Your task to perform on an android device: Open calendar and show me the first week of next month Image 0: 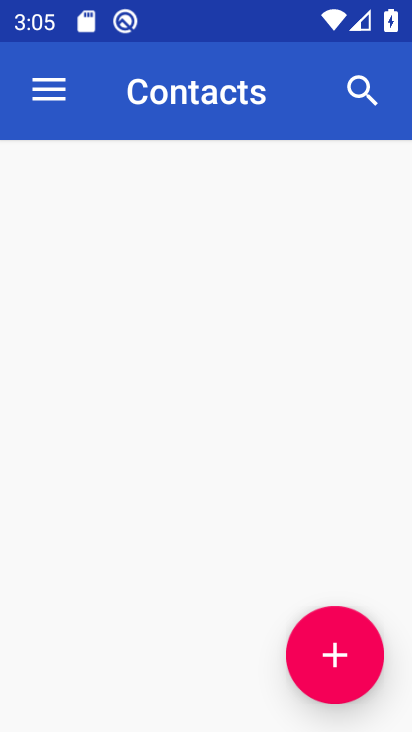
Step 0: press home button
Your task to perform on an android device: Open calendar and show me the first week of next month Image 1: 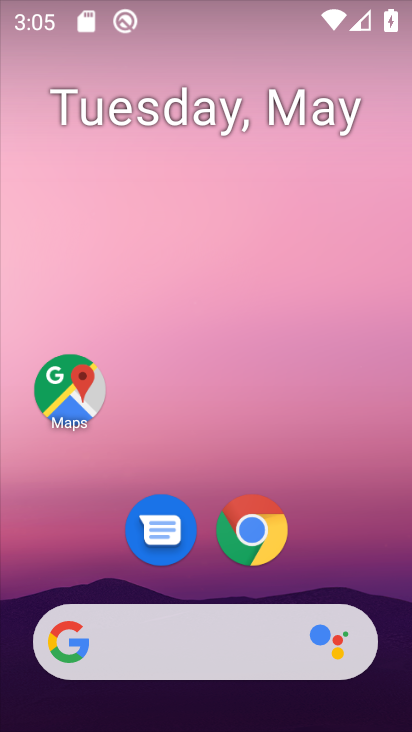
Step 1: drag from (70, 583) to (237, 95)
Your task to perform on an android device: Open calendar and show me the first week of next month Image 2: 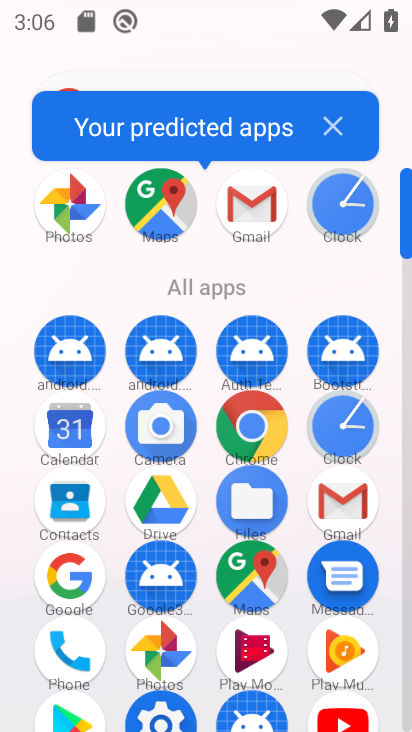
Step 2: click (85, 436)
Your task to perform on an android device: Open calendar and show me the first week of next month Image 3: 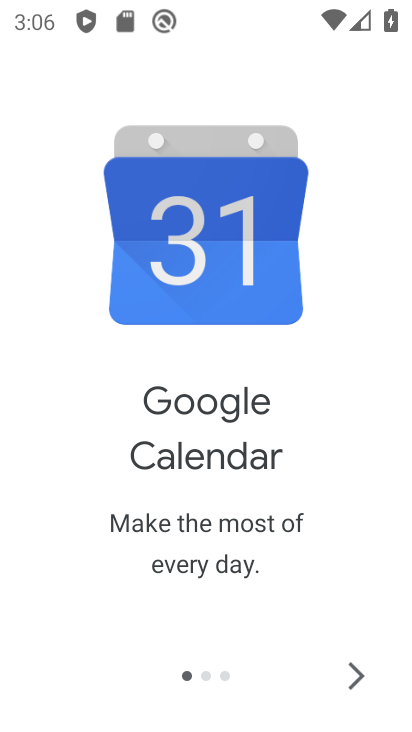
Step 3: click (380, 701)
Your task to perform on an android device: Open calendar and show me the first week of next month Image 4: 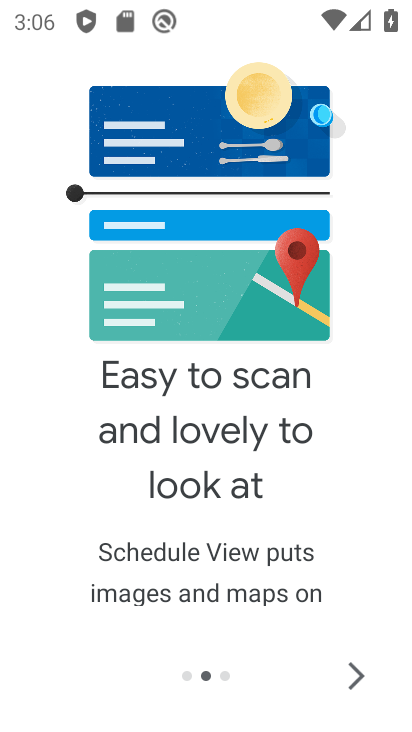
Step 4: click (379, 700)
Your task to perform on an android device: Open calendar and show me the first week of next month Image 5: 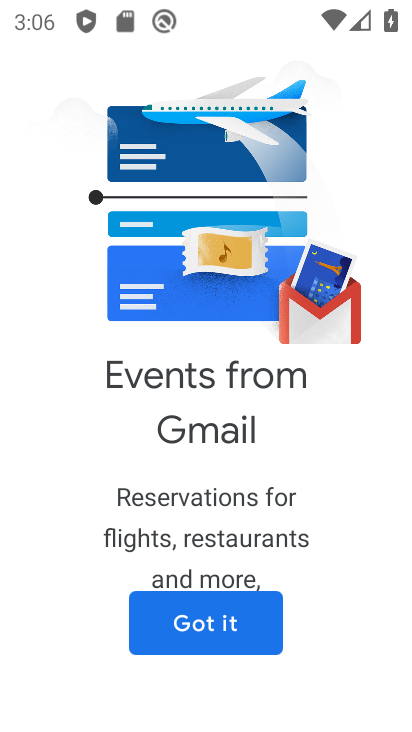
Step 5: click (278, 654)
Your task to perform on an android device: Open calendar and show me the first week of next month Image 6: 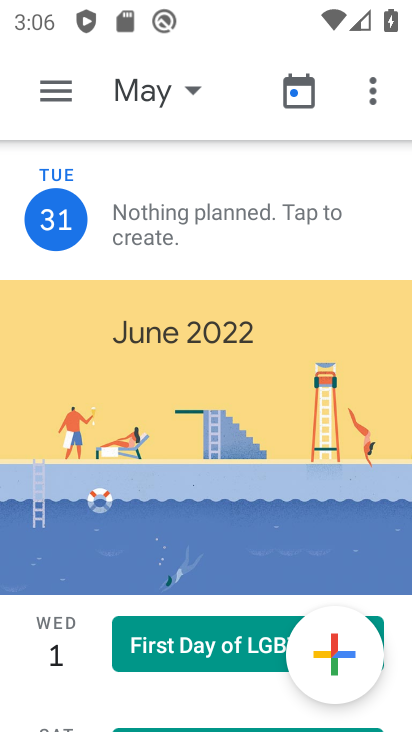
Step 6: click (146, 94)
Your task to perform on an android device: Open calendar and show me the first week of next month Image 7: 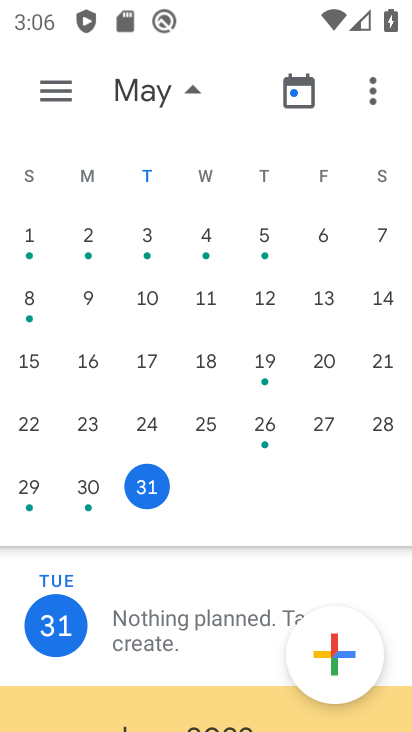
Step 7: drag from (325, 455) to (12, 396)
Your task to perform on an android device: Open calendar and show me the first week of next month Image 8: 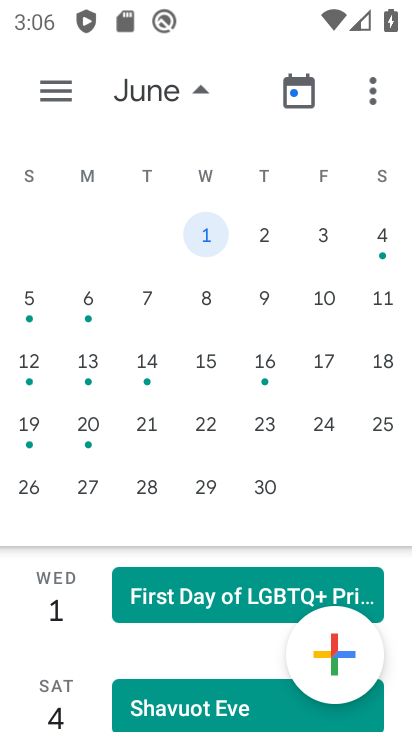
Step 8: click (30, 308)
Your task to perform on an android device: Open calendar and show me the first week of next month Image 9: 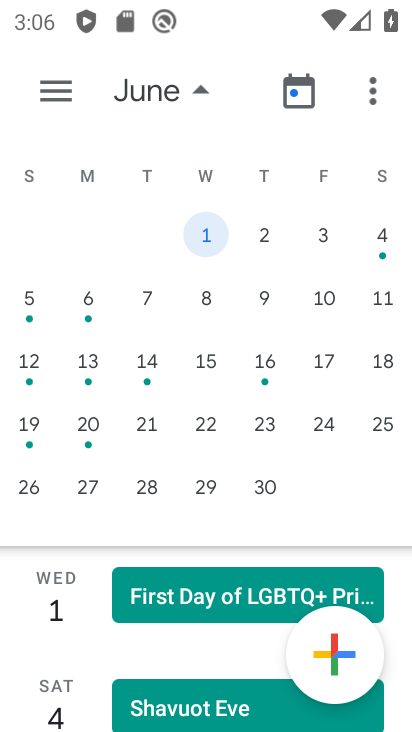
Step 9: click (29, 301)
Your task to perform on an android device: Open calendar and show me the first week of next month Image 10: 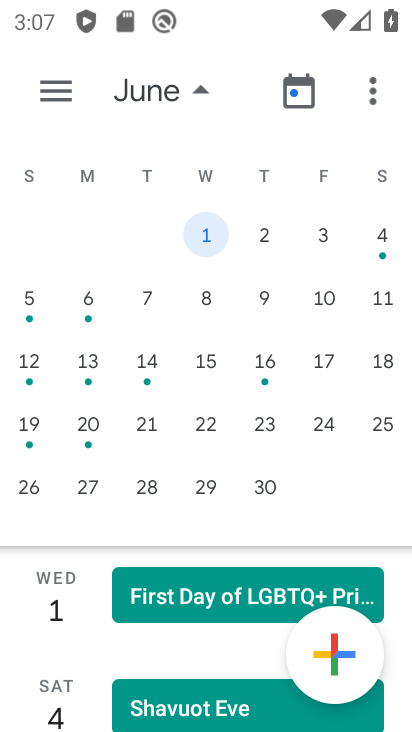
Step 10: click (33, 306)
Your task to perform on an android device: Open calendar and show me the first week of next month Image 11: 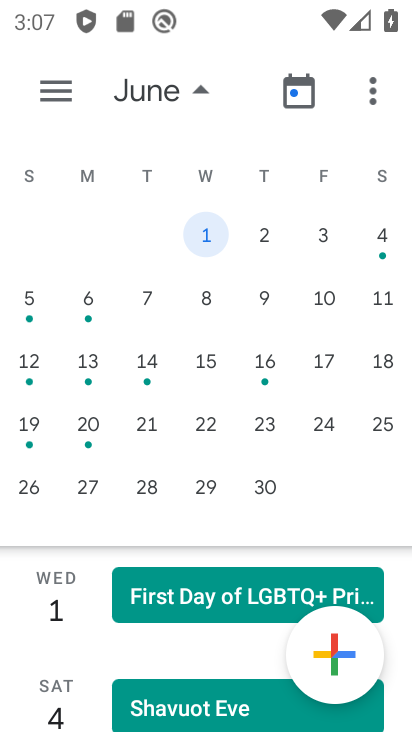
Step 11: click (32, 307)
Your task to perform on an android device: Open calendar and show me the first week of next month Image 12: 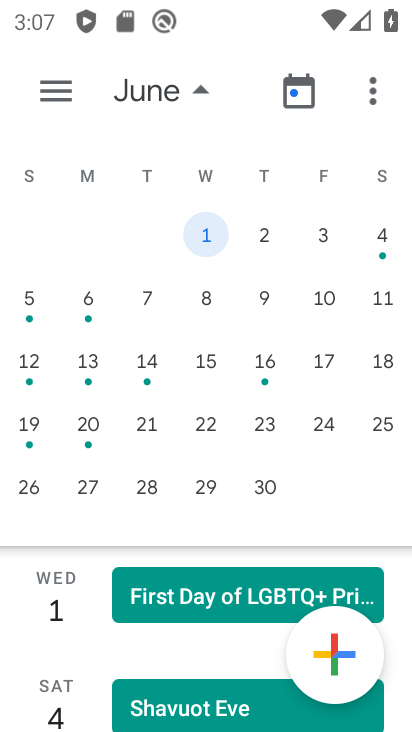
Step 12: click (36, 311)
Your task to perform on an android device: Open calendar and show me the first week of next month Image 13: 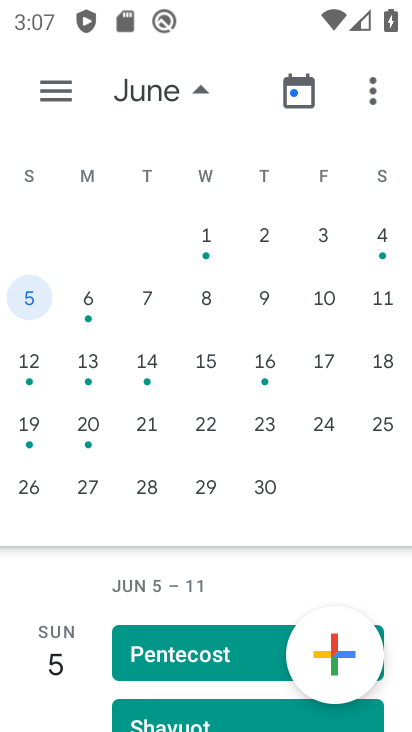
Step 13: click (57, 82)
Your task to perform on an android device: Open calendar and show me the first week of next month Image 14: 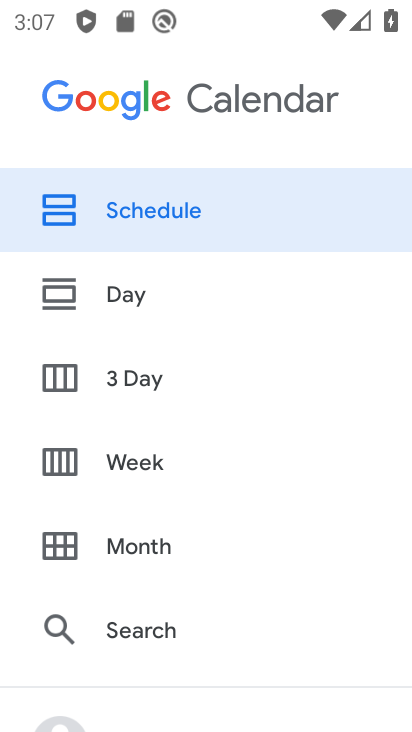
Step 14: click (120, 459)
Your task to perform on an android device: Open calendar and show me the first week of next month Image 15: 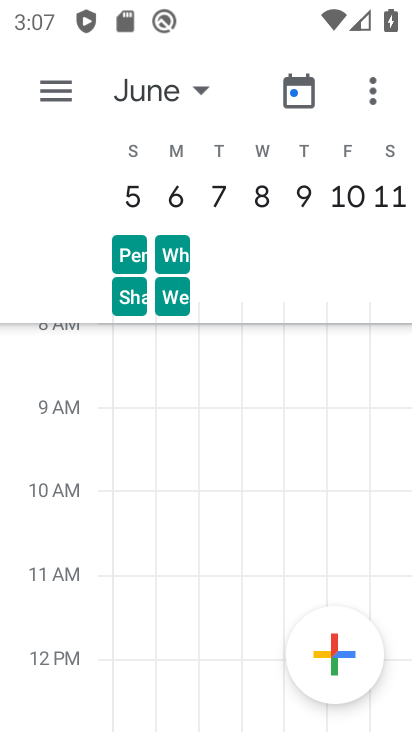
Step 15: task complete